Your task to perform on an android device: Show me popular games on the Play Store Image 0: 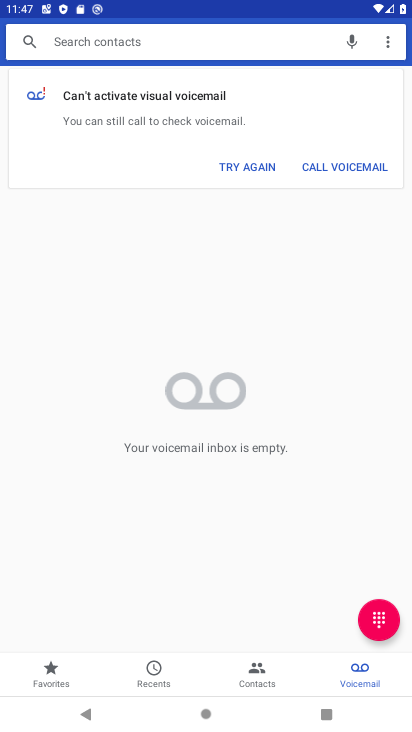
Step 0: press home button
Your task to perform on an android device: Show me popular games on the Play Store Image 1: 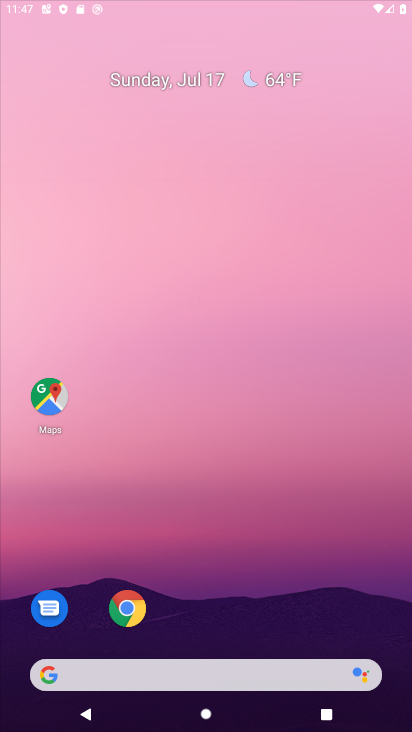
Step 1: drag from (265, 647) to (202, 63)
Your task to perform on an android device: Show me popular games on the Play Store Image 2: 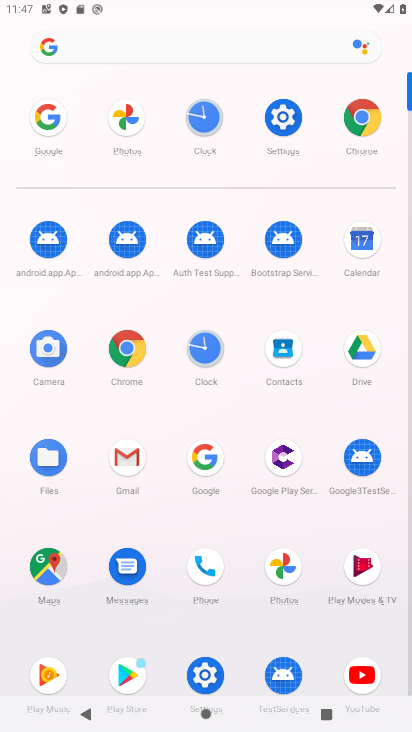
Step 2: click (128, 659)
Your task to perform on an android device: Show me popular games on the Play Store Image 3: 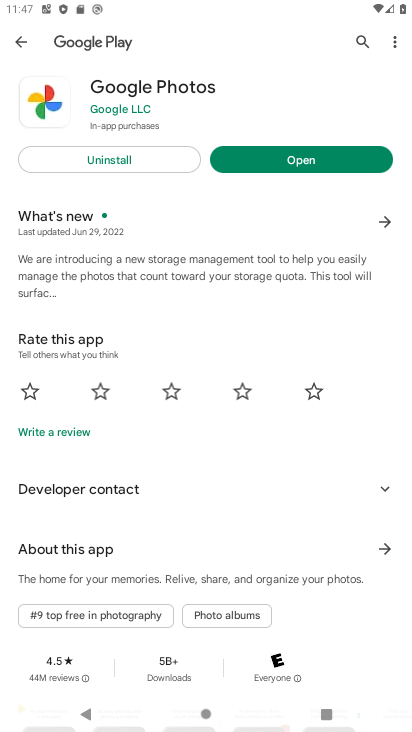
Step 3: press back button
Your task to perform on an android device: Show me popular games on the Play Store Image 4: 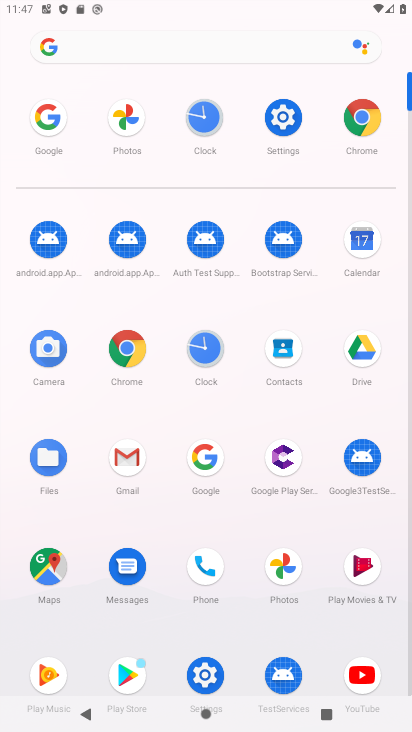
Step 4: click (132, 645)
Your task to perform on an android device: Show me popular games on the Play Store Image 5: 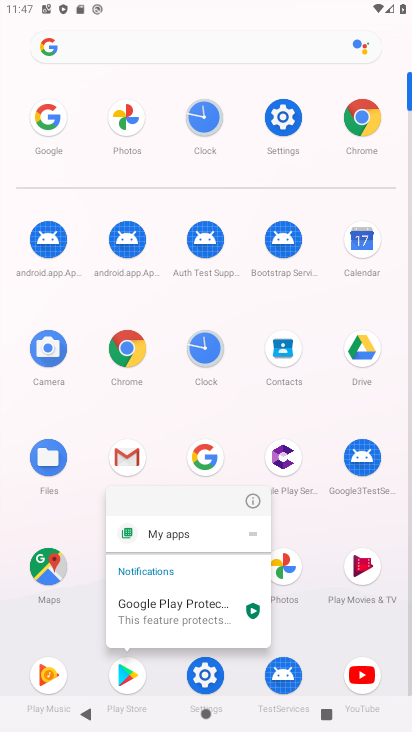
Step 5: click (132, 673)
Your task to perform on an android device: Show me popular games on the Play Store Image 6: 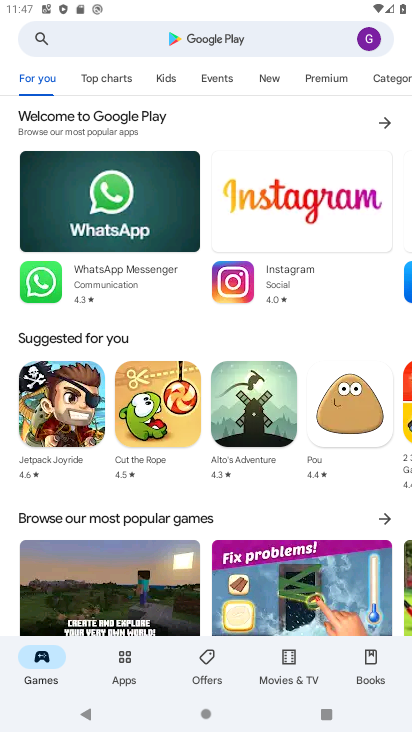
Step 6: click (225, 46)
Your task to perform on an android device: Show me popular games on the Play Store Image 7: 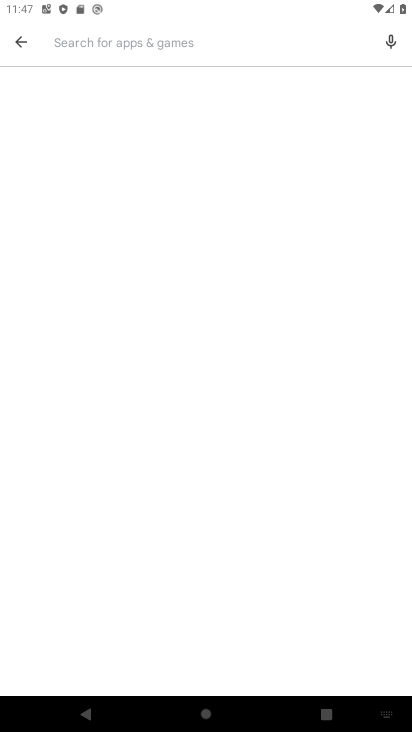
Step 7: type "popular games"
Your task to perform on an android device: Show me popular games on the Play Store Image 8: 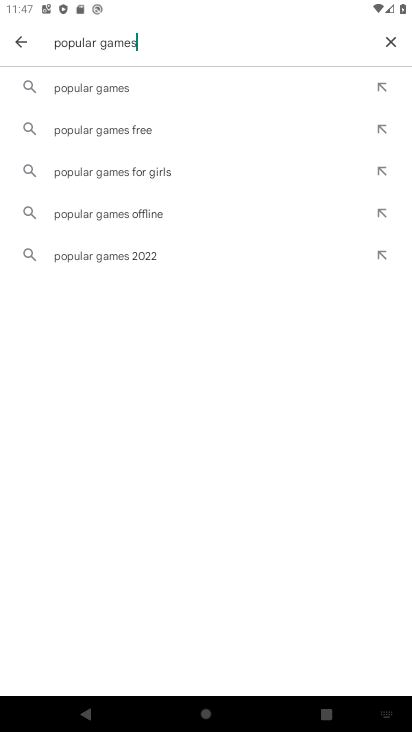
Step 8: click (113, 91)
Your task to perform on an android device: Show me popular games on the Play Store Image 9: 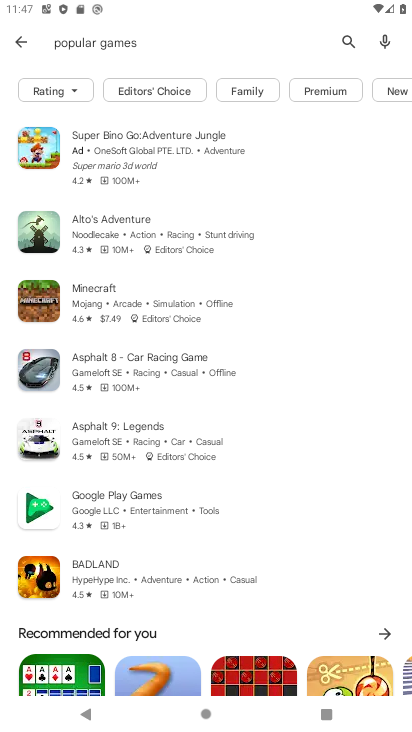
Step 9: task complete